Your task to perform on an android device: open the mobile data screen to see how much data has been used Image 0: 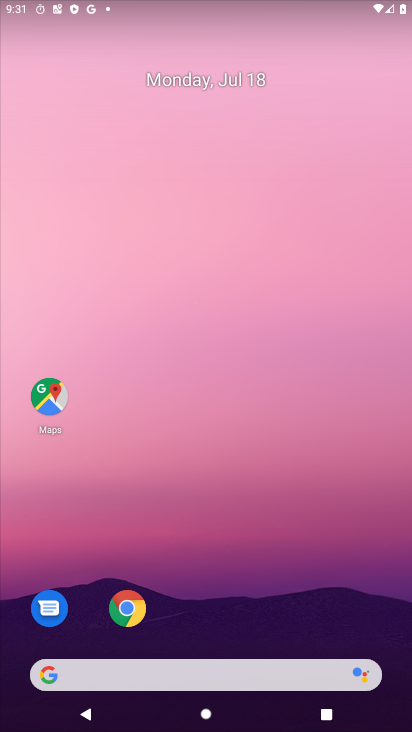
Step 0: drag from (208, 402) to (231, 218)
Your task to perform on an android device: open the mobile data screen to see how much data has been used Image 1: 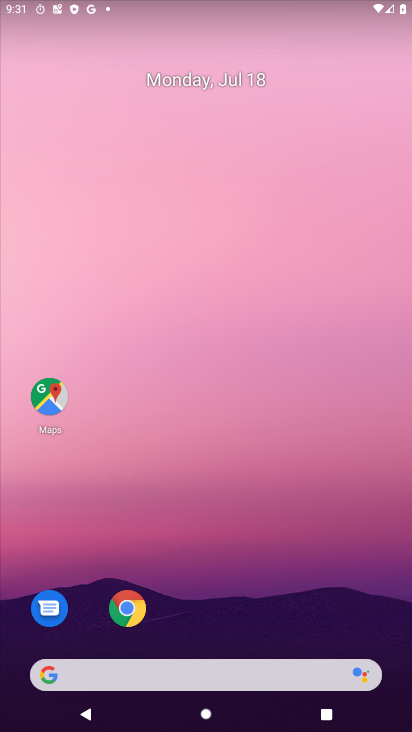
Step 1: drag from (187, 587) to (229, 0)
Your task to perform on an android device: open the mobile data screen to see how much data has been used Image 2: 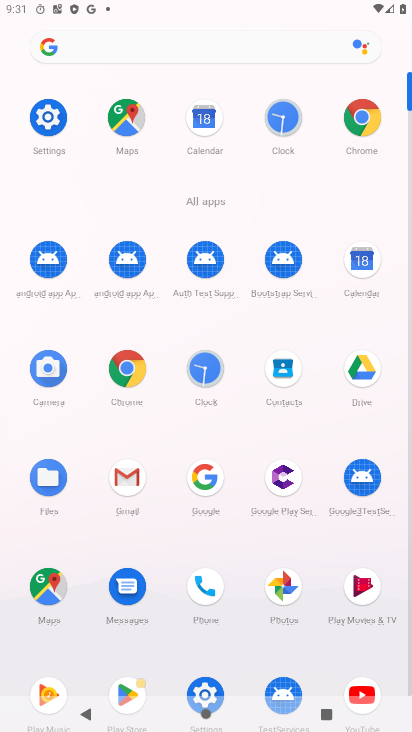
Step 2: click (45, 122)
Your task to perform on an android device: open the mobile data screen to see how much data has been used Image 3: 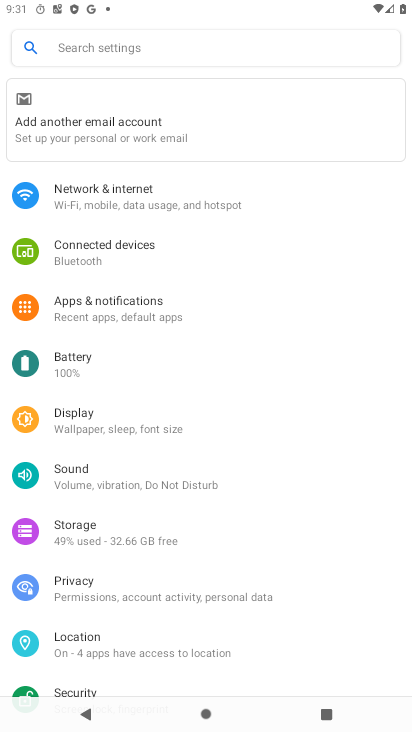
Step 3: click (115, 202)
Your task to perform on an android device: open the mobile data screen to see how much data has been used Image 4: 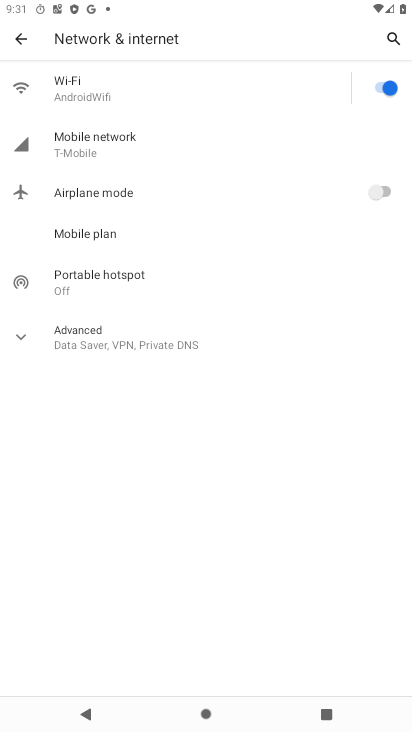
Step 4: click (133, 144)
Your task to perform on an android device: open the mobile data screen to see how much data has been used Image 5: 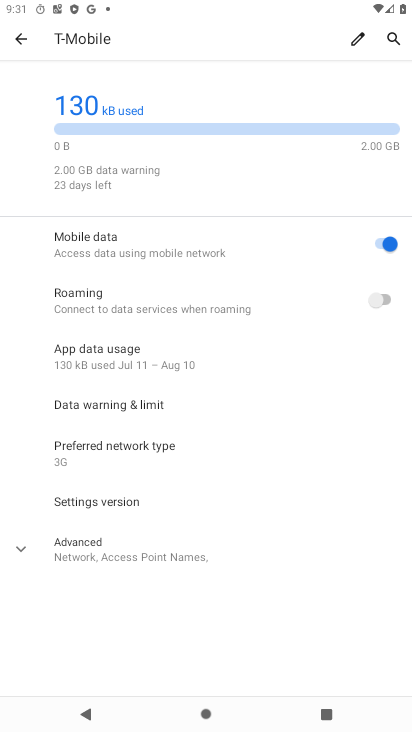
Step 5: task complete